Your task to perform on an android device: turn off smart reply in the gmail app Image 0: 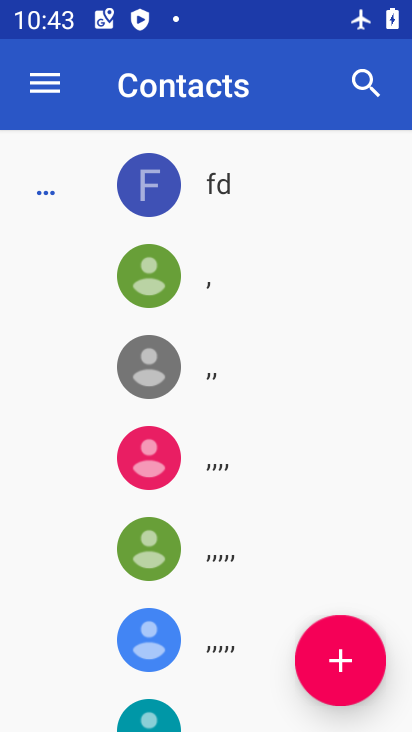
Step 0: press home button
Your task to perform on an android device: turn off smart reply in the gmail app Image 1: 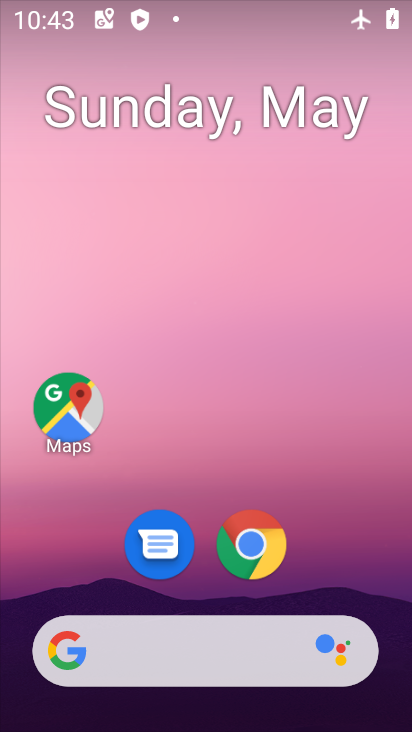
Step 1: drag from (353, 578) to (343, 314)
Your task to perform on an android device: turn off smart reply in the gmail app Image 2: 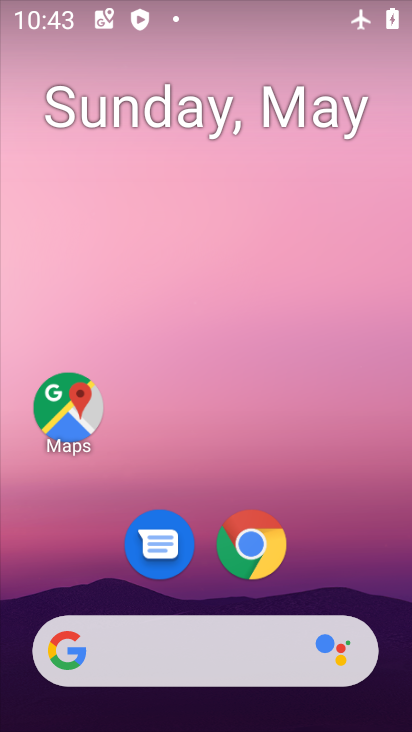
Step 2: drag from (287, 566) to (306, 283)
Your task to perform on an android device: turn off smart reply in the gmail app Image 3: 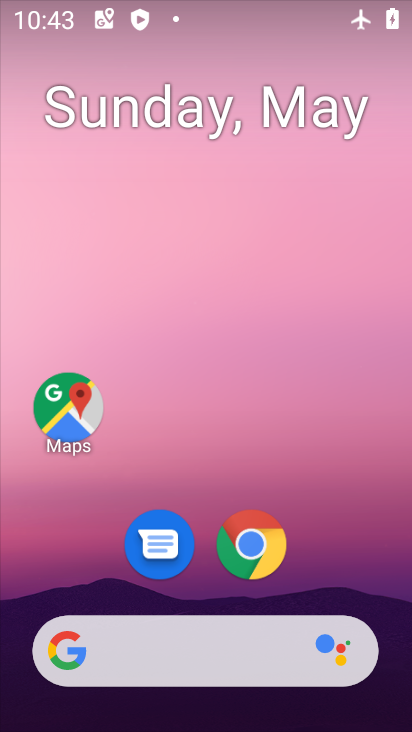
Step 3: drag from (315, 486) to (317, 436)
Your task to perform on an android device: turn off smart reply in the gmail app Image 4: 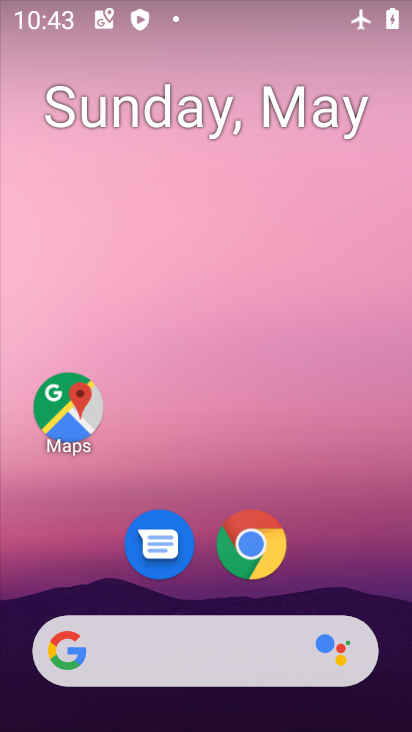
Step 4: drag from (309, 605) to (308, 384)
Your task to perform on an android device: turn off smart reply in the gmail app Image 5: 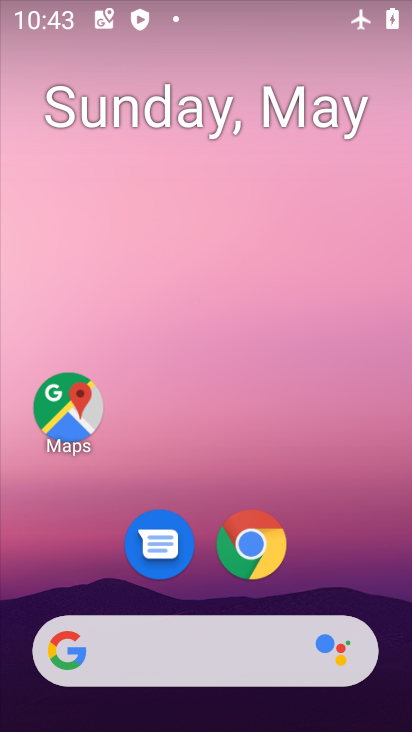
Step 5: drag from (281, 605) to (296, 304)
Your task to perform on an android device: turn off smart reply in the gmail app Image 6: 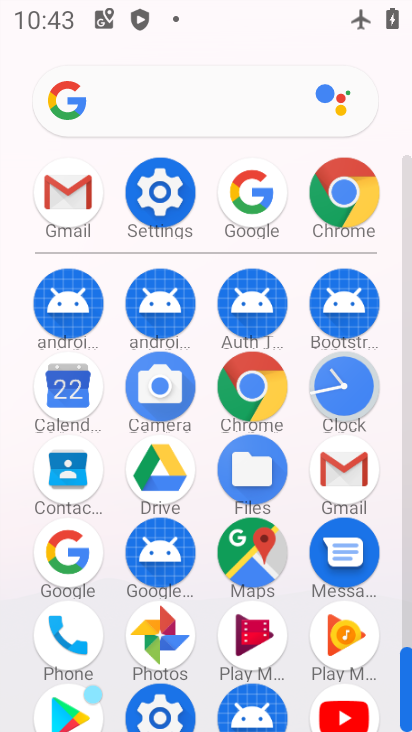
Step 6: drag from (193, 619) to (212, 323)
Your task to perform on an android device: turn off smart reply in the gmail app Image 7: 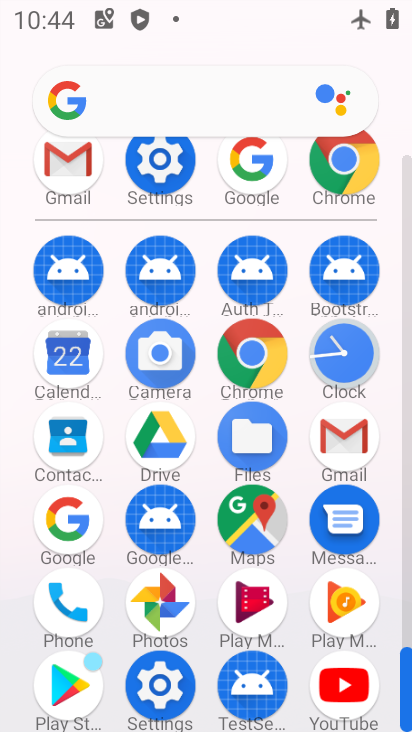
Step 7: click (356, 428)
Your task to perform on an android device: turn off smart reply in the gmail app Image 8: 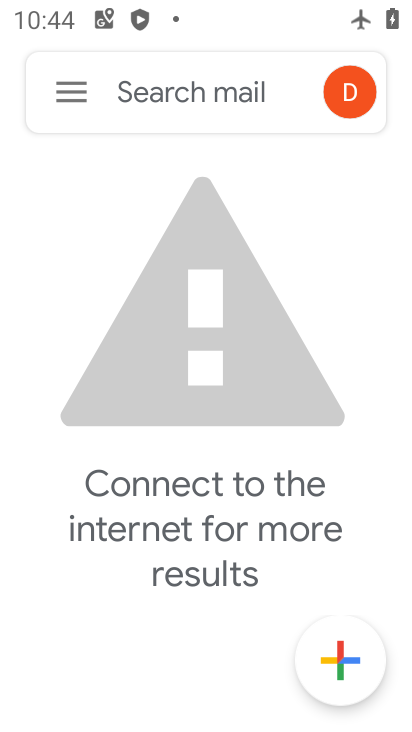
Step 8: click (77, 92)
Your task to perform on an android device: turn off smart reply in the gmail app Image 9: 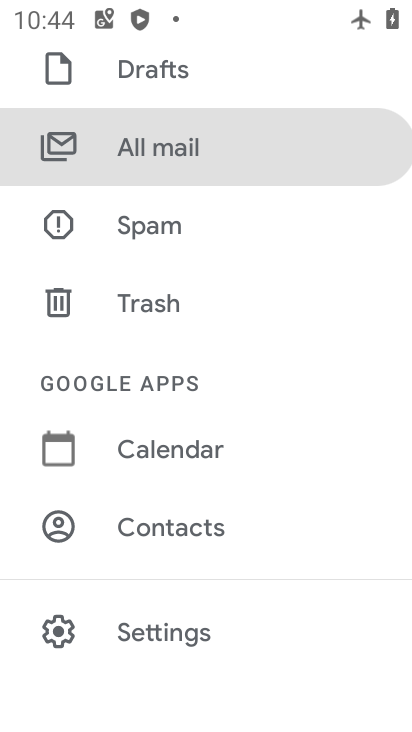
Step 9: click (171, 615)
Your task to perform on an android device: turn off smart reply in the gmail app Image 10: 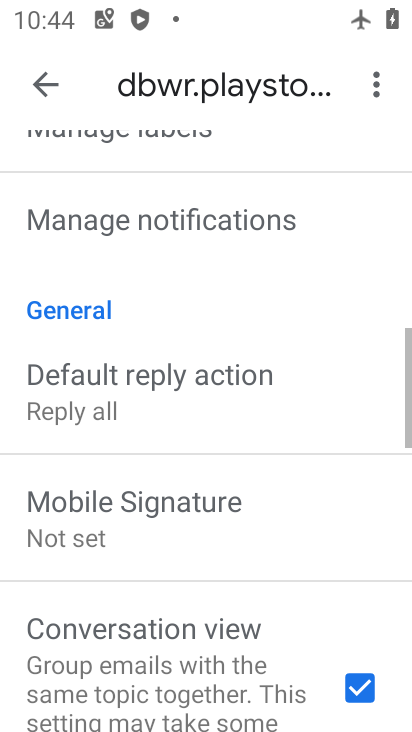
Step 10: drag from (301, 270) to (303, 186)
Your task to perform on an android device: turn off smart reply in the gmail app Image 11: 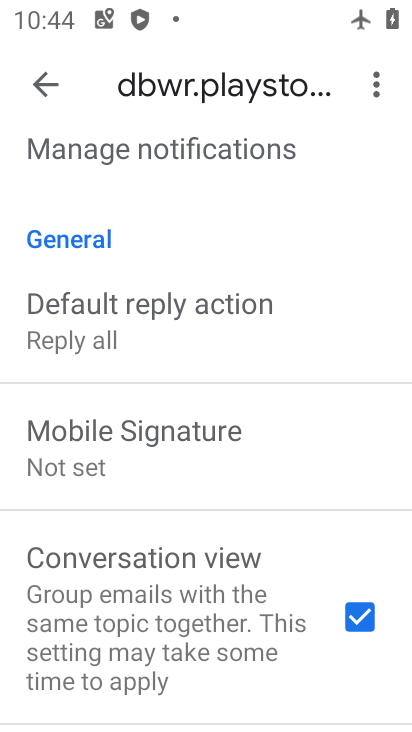
Step 11: drag from (286, 321) to (285, 180)
Your task to perform on an android device: turn off smart reply in the gmail app Image 12: 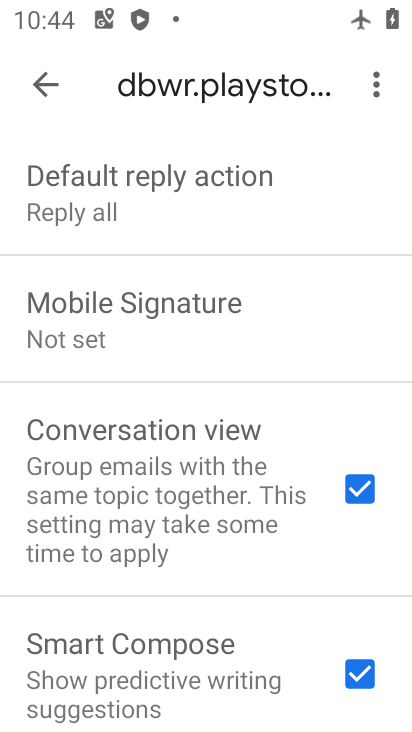
Step 12: drag from (202, 610) to (267, 256)
Your task to perform on an android device: turn off smart reply in the gmail app Image 13: 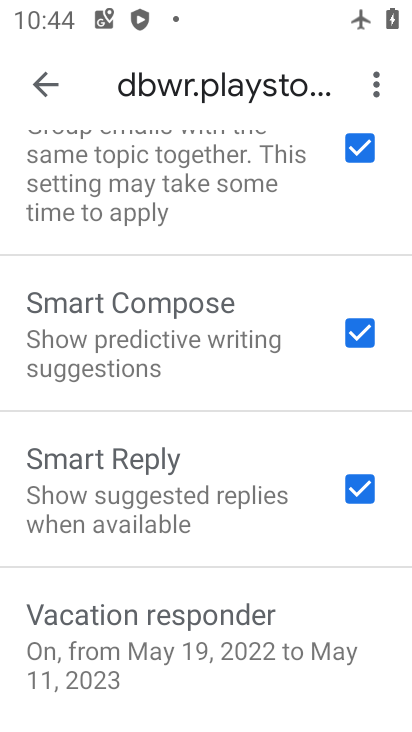
Step 13: click (348, 330)
Your task to perform on an android device: turn off smart reply in the gmail app Image 14: 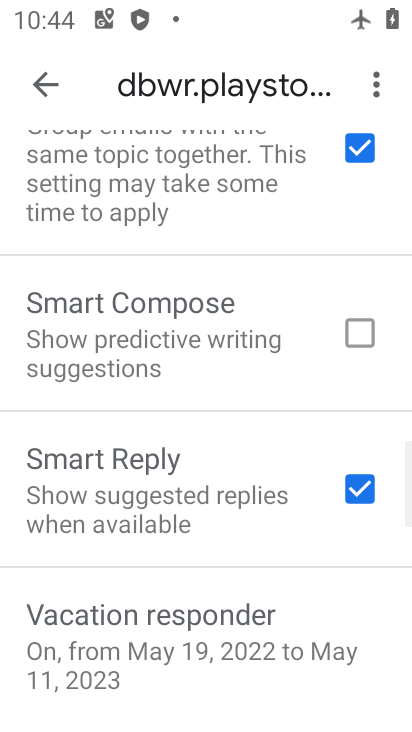
Step 14: click (348, 332)
Your task to perform on an android device: turn off smart reply in the gmail app Image 15: 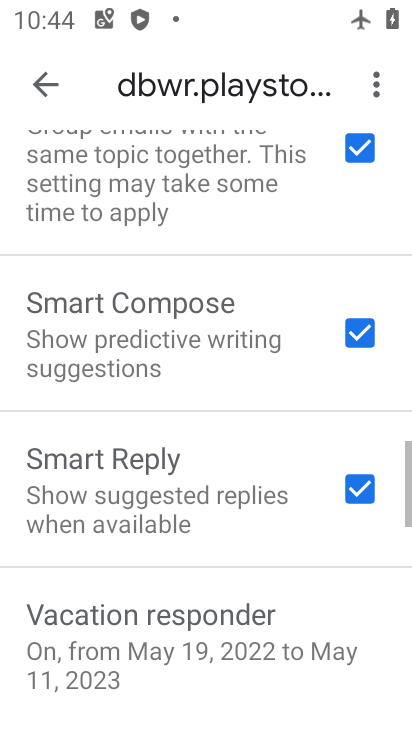
Step 15: click (363, 487)
Your task to perform on an android device: turn off smart reply in the gmail app Image 16: 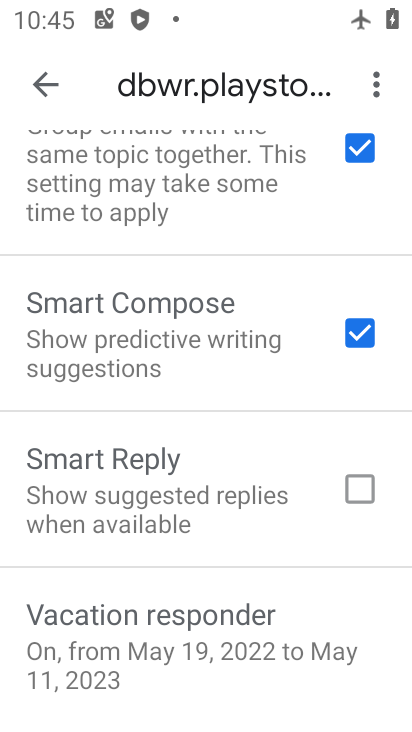
Step 16: task complete